Your task to perform on an android device: Open the calendar and show me this week's events Image 0: 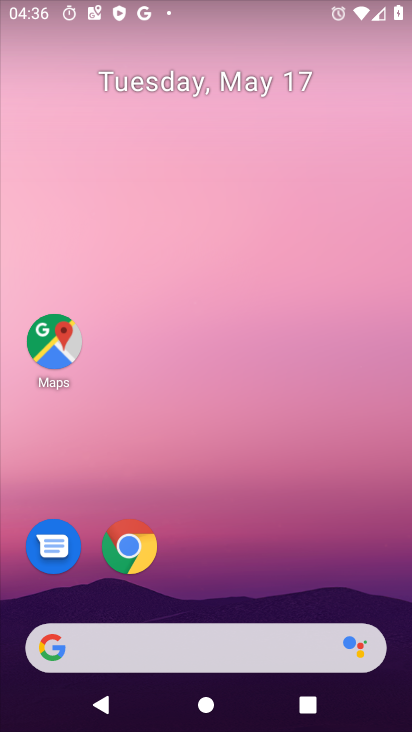
Step 0: drag from (395, 649) to (378, 337)
Your task to perform on an android device: Open the calendar and show me this week's events Image 1: 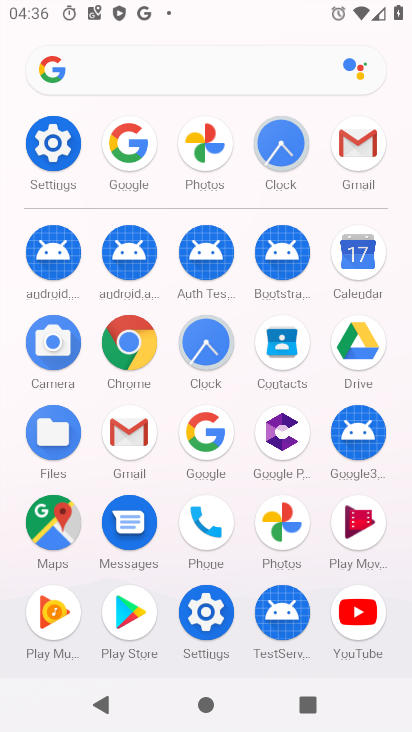
Step 1: click (355, 253)
Your task to perform on an android device: Open the calendar and show me this week's events Image 2: 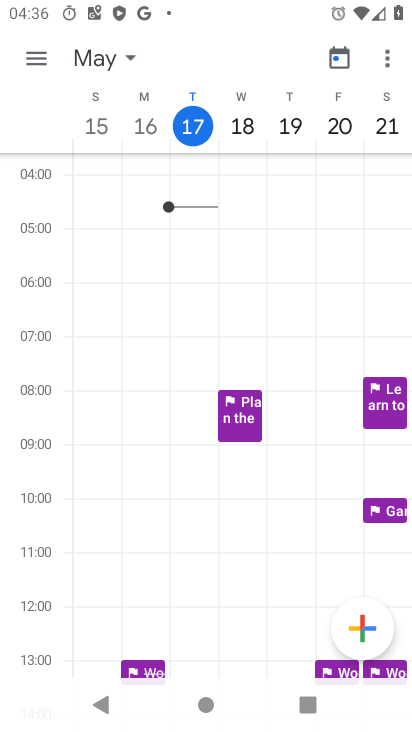
Step 2: click (40, 59)
Your task to perform on an android device: Open the calendar and show me this week's events Image 3: 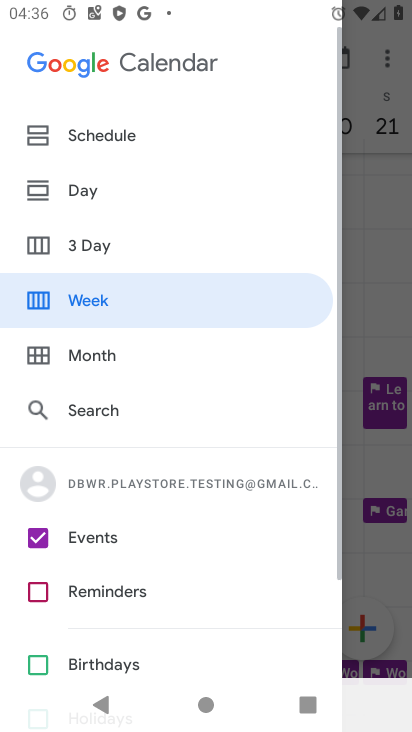
Step 3: click (65, 305)
Your task to perform on an android device: Open the calendar and show me this week's events Image 4: 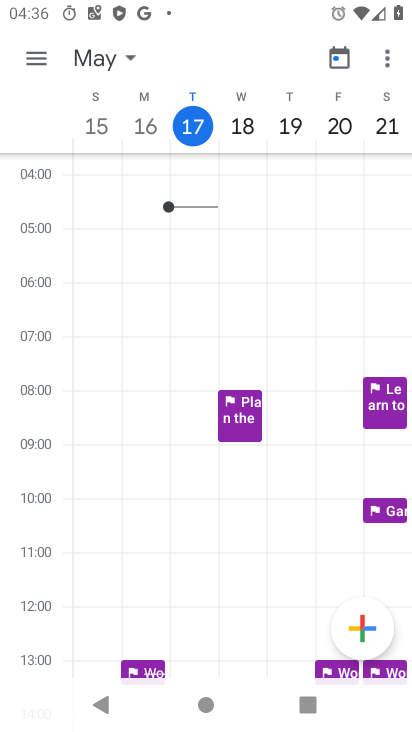
Step 4: task complete